Your task to perform on an android device: check battery use Image 0: 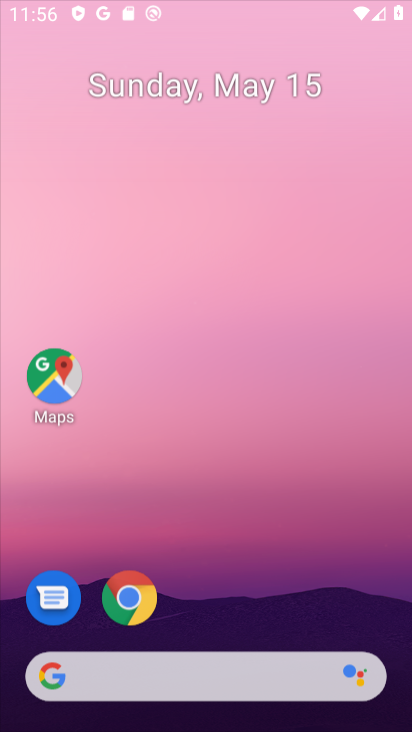
Step 0: click (330, 693)
Your task to perform on an android device: check battery use Image 1: 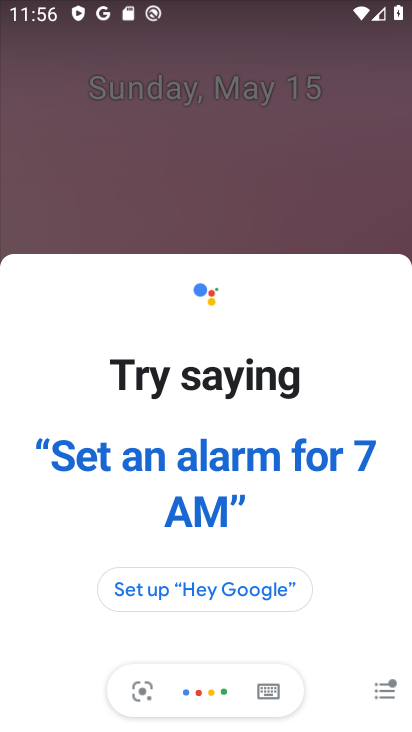
Step 1: press home button
Your task to perform on an android device: check battery use Image 2: 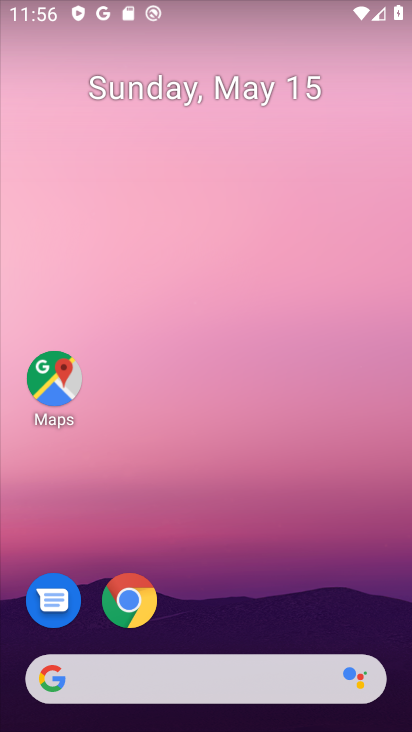
Step 2: drag from (233, 725) to (188, 301)
Your task to perform on an android device: check battery use Image 3: 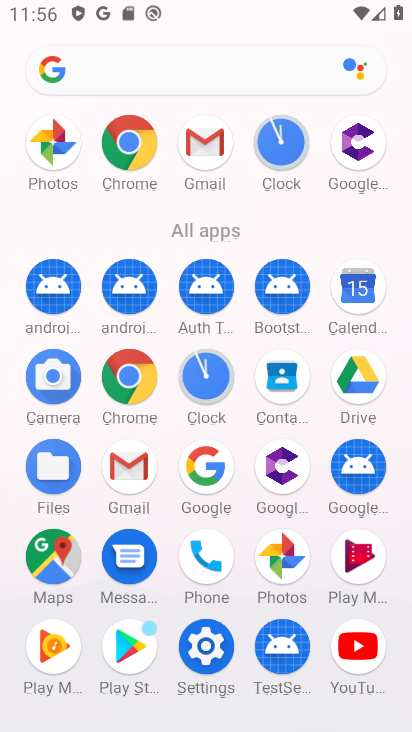
Step 3: click (203, 639)
Your task to perform on an android device: check battery use Image 4: 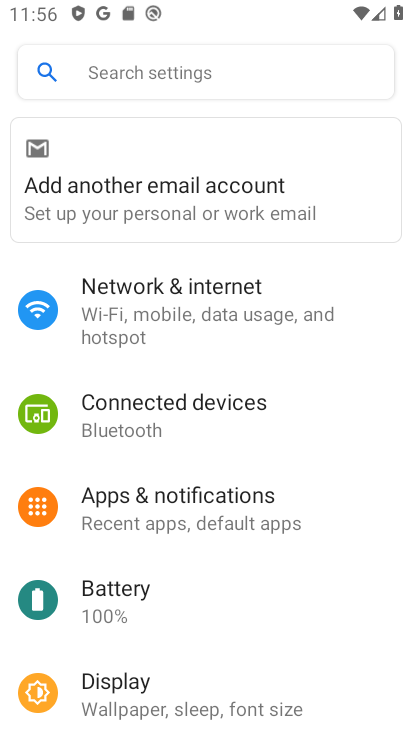
Step 4: click (108, 589)
Your task to perform on an android device: check battery use Image 5: 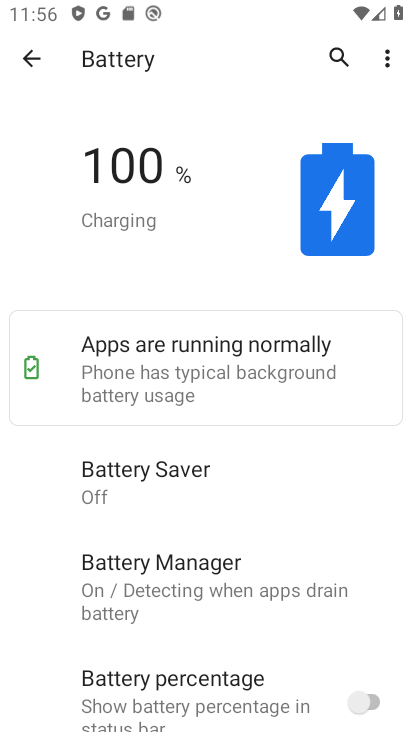
Step 5: click (389, 59)
Your task to perform on an android device: check battery use Image 6: 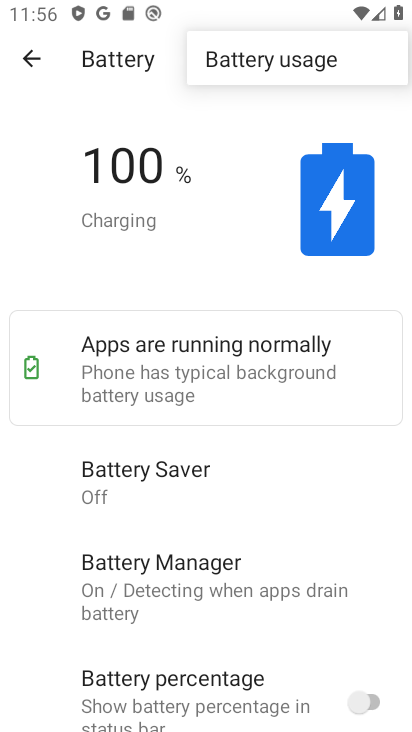
Step 6: click (262, 57)
Your task to perform on an android device: check battery use Image 7: 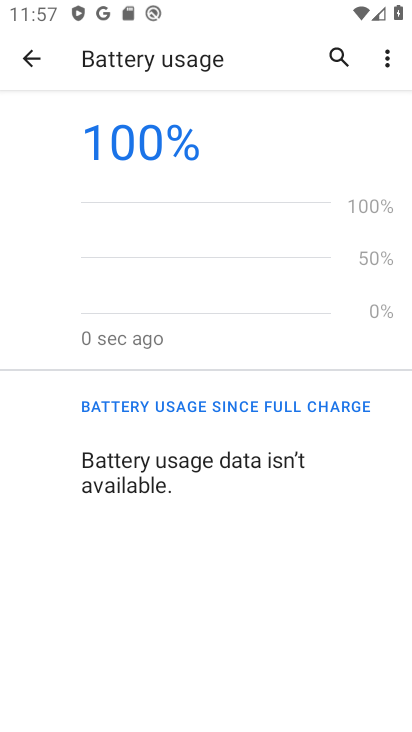
Step 7: task complete